Your task to perform on an android device: check storage Image 0: 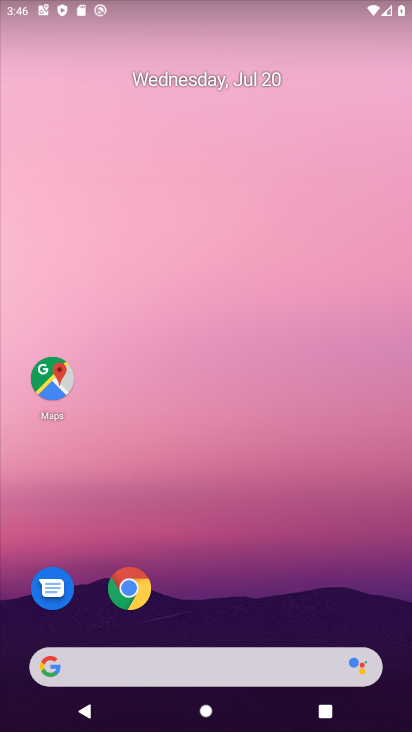
Step 0: drag from (259, 595) to (299, 42)
Your task to perform on an android device: check storage Image 1: 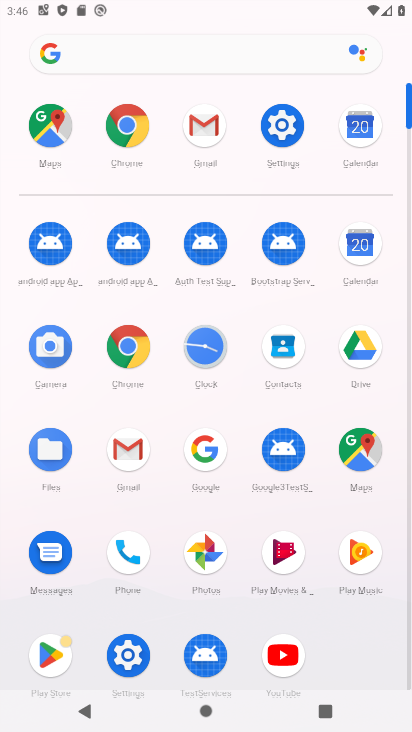
Step 1: click (281, 115)
Your task to perform on an android device: check storage Image 2: 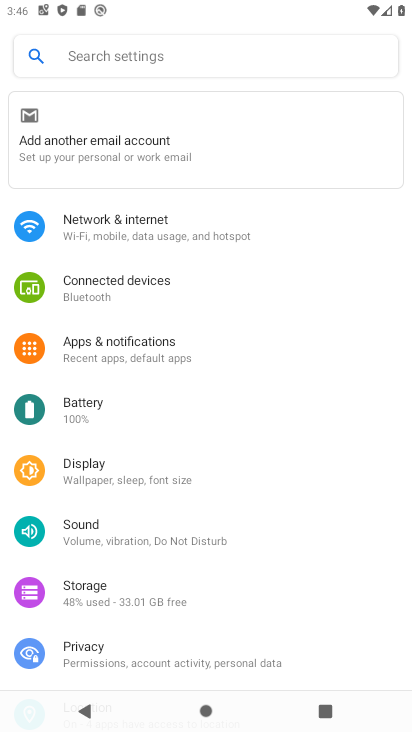
Step 2: drag from (219, 623) to (271, 159)
Your task to perform on an android device: check storage Image 3: 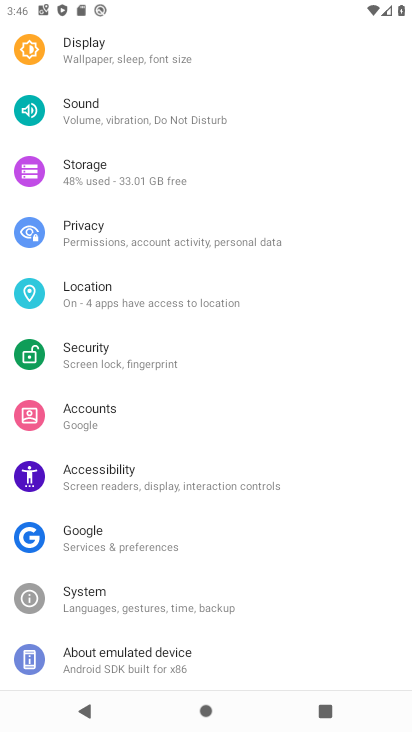
Step 3: click (91, 170)
Your task to perform on an android device: check storage Image 4: 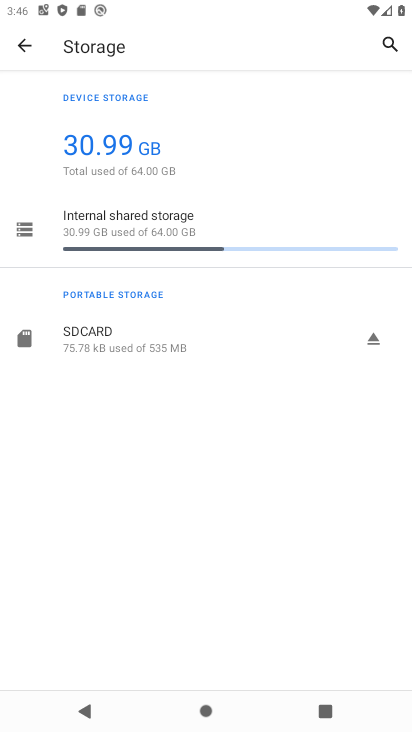
Step 4: task complete